Your task to perform on an android device: Add usb-c to usb-b to the cart on target.com Image 0: 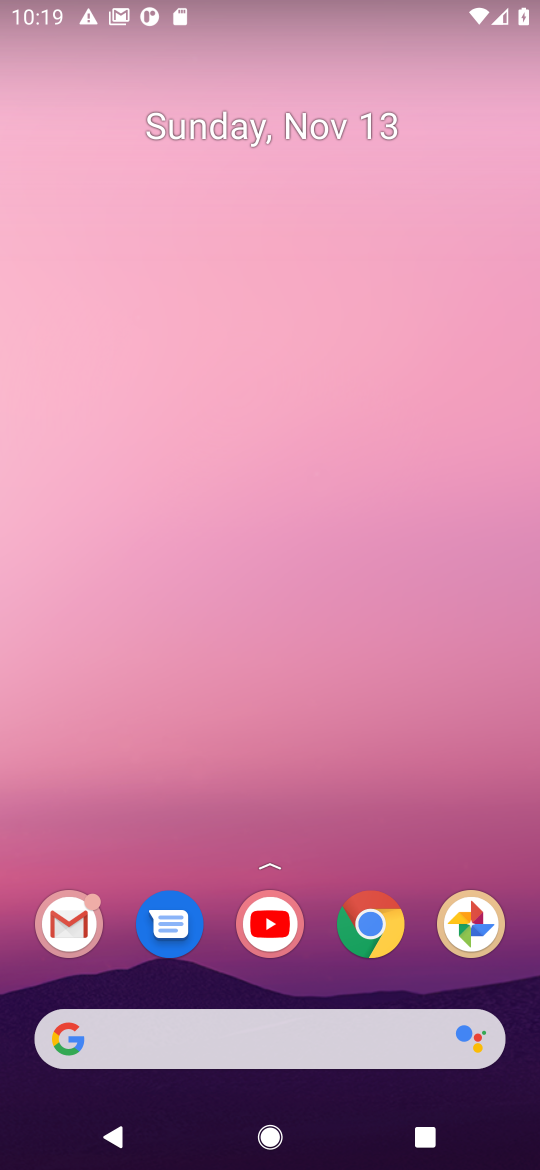
Step 0: click (369, 927)
Your task to perform on an android device: Add usb-c to usb-b to the cart on target.com Image 1: 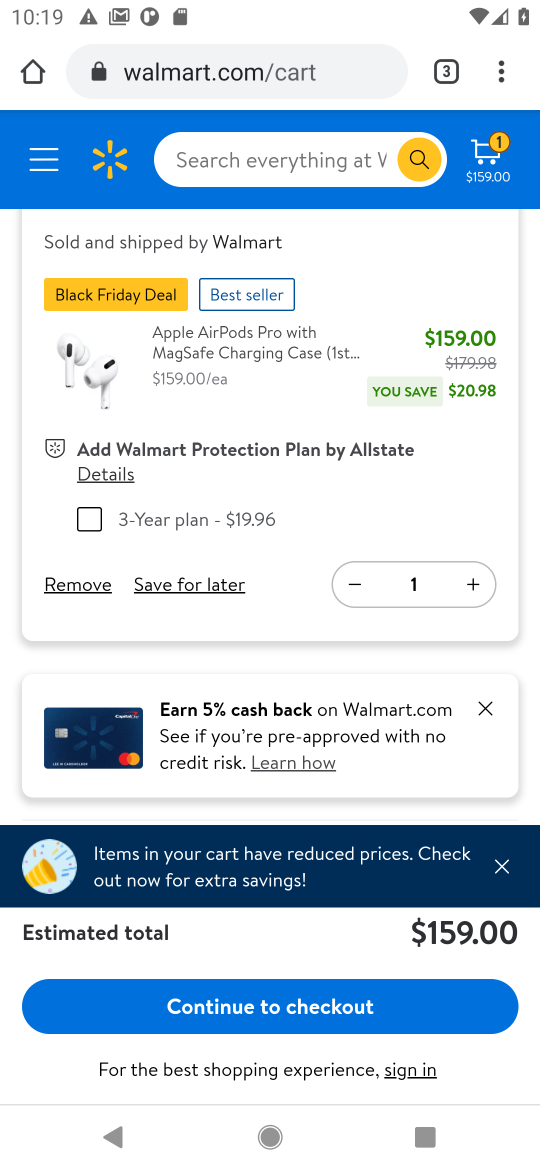
Step 1: click (209, 63)
Your task to perform on an android device: Add usb-c to usb-b to the cart on target.com Image 2: 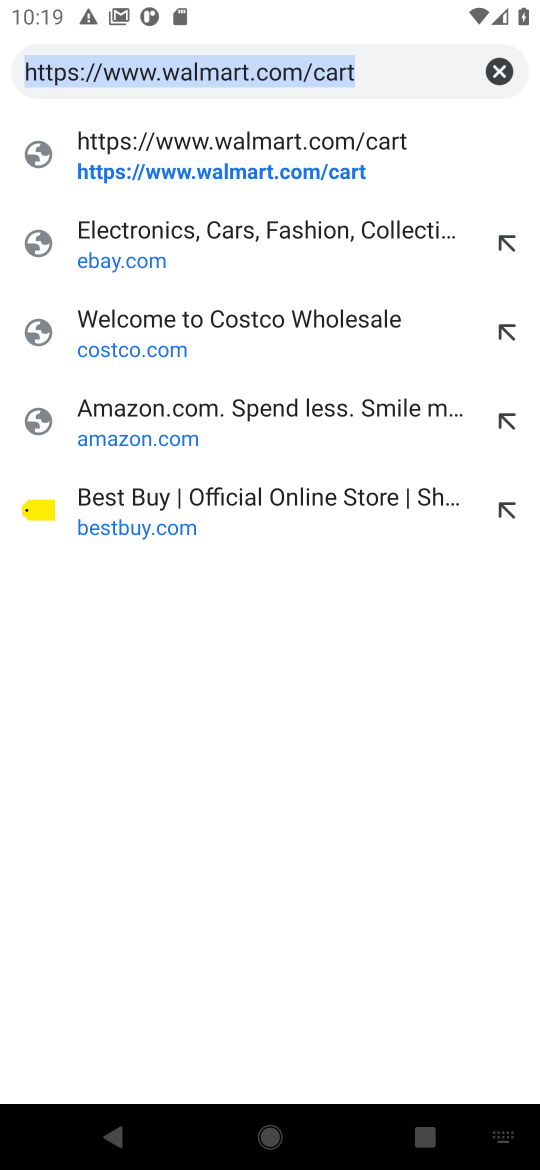
Step 2: type "target.com"
Your task to perform on an android device: Add usb-c to usb-b to the cart on target.com Image 3: 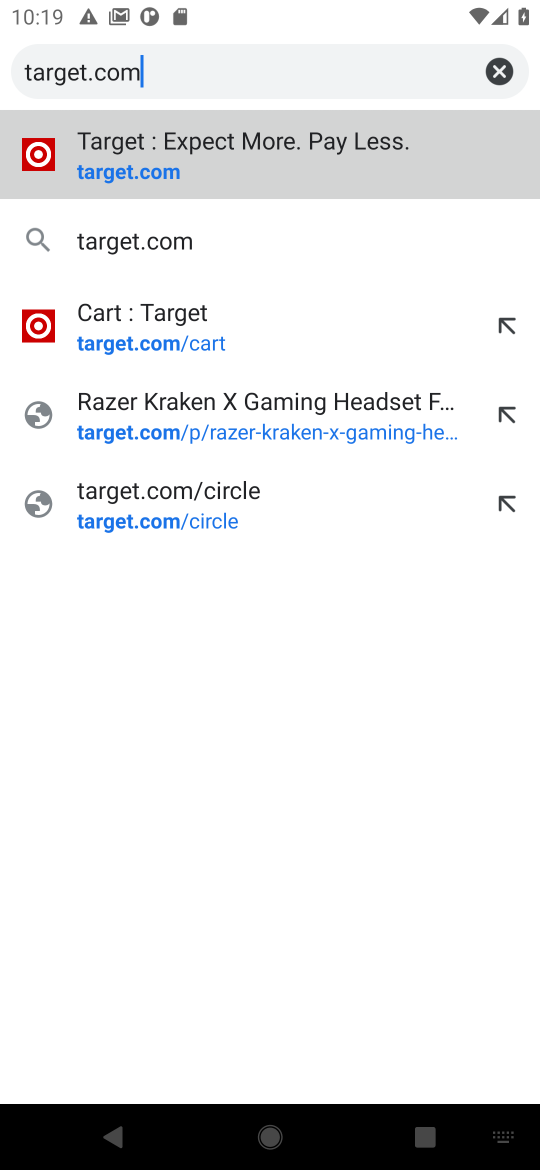
Step 3: click (117, 161)
Your task to perform on an android device: Add usb-c to usb-b to the cart on target.com Image 4: 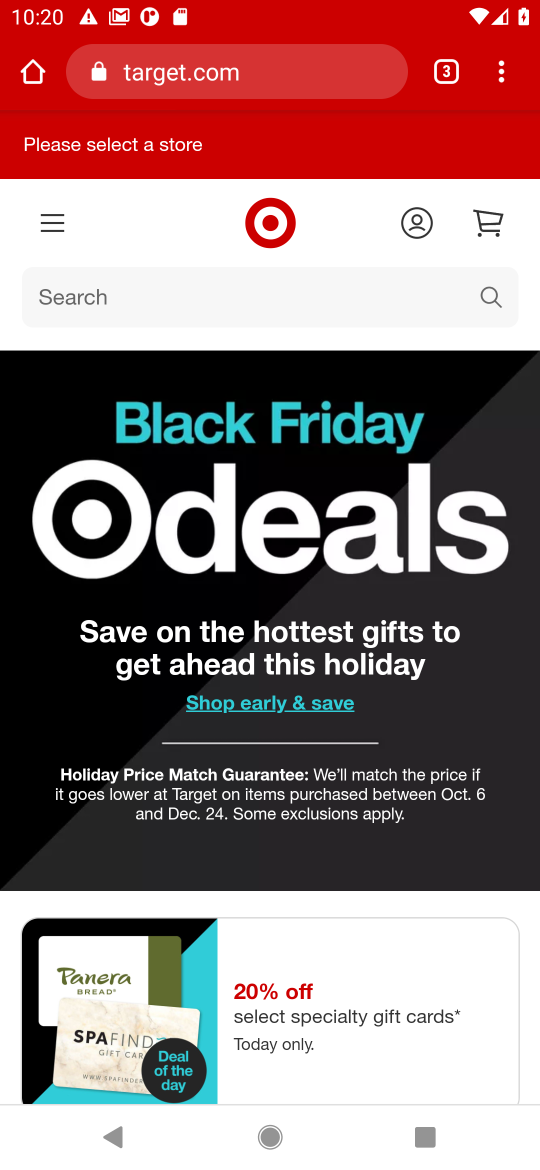
Step 4: click (485, 300)
Your task to perform on an android device: Add usb-c to usb-b to the cart on target.com Image 5: 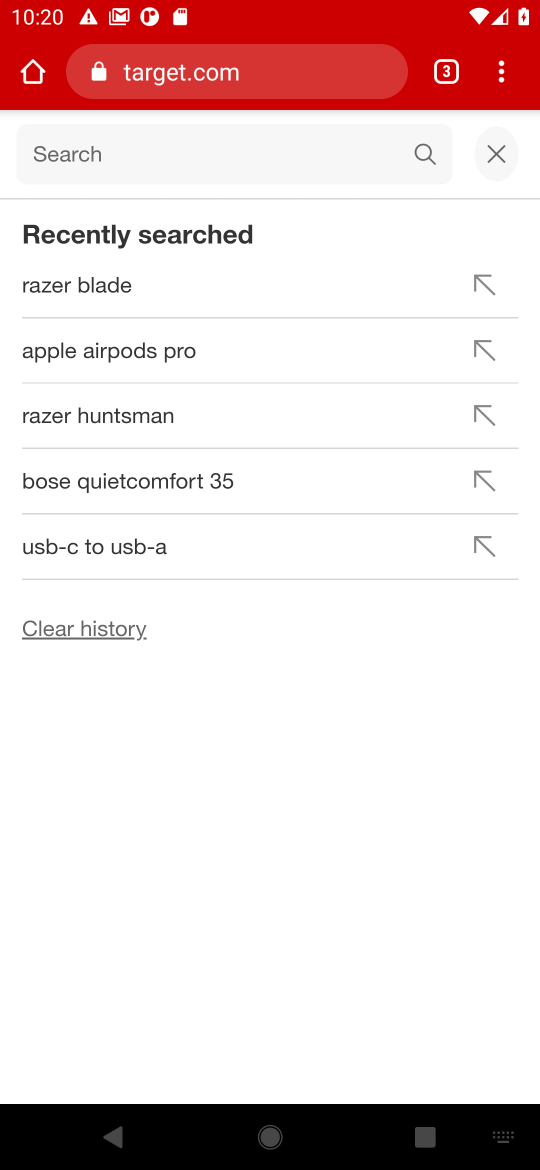
Step 5: type "usb-c to usb-b"
Your task to perform on an android device: Add usb-c to usb-b to the cart on target.com Image 6: 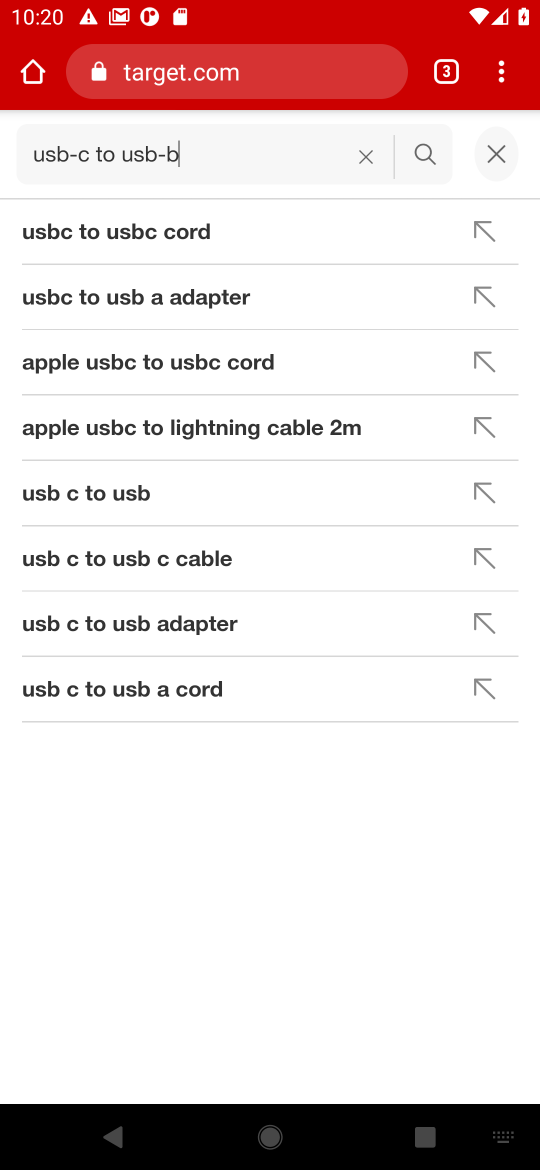
Step 6: click (423, 153)
Your task to perform on an android device: Add usb-c to usb-b to the cart on target.com Image 7: 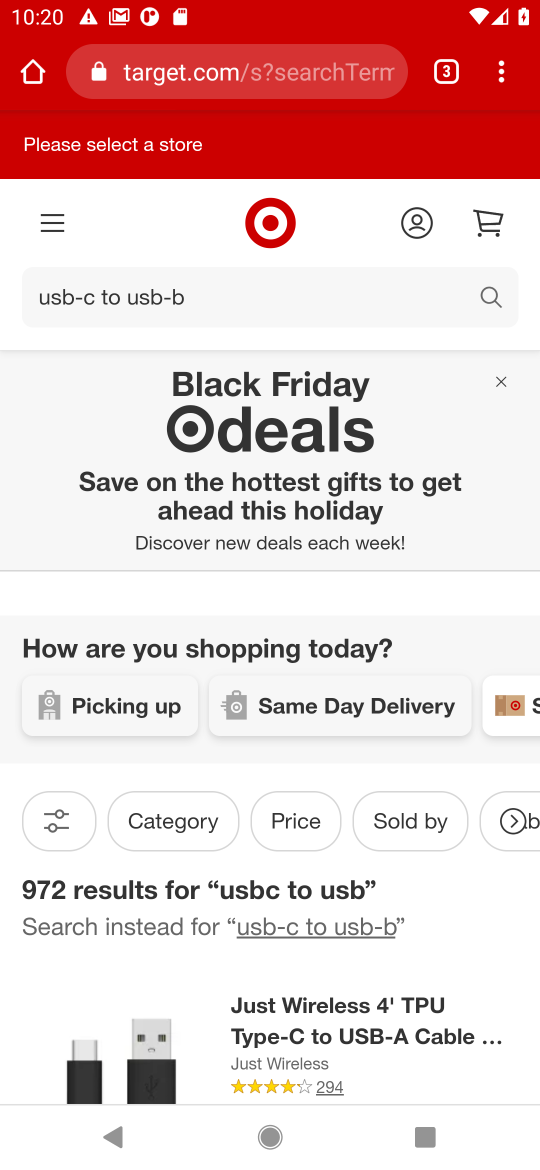
Step 7: drag from (185, 792) to (179, 345)
Your task to perform on an android device: Add usb-c to usb-b to the cart on target.com Image 8: 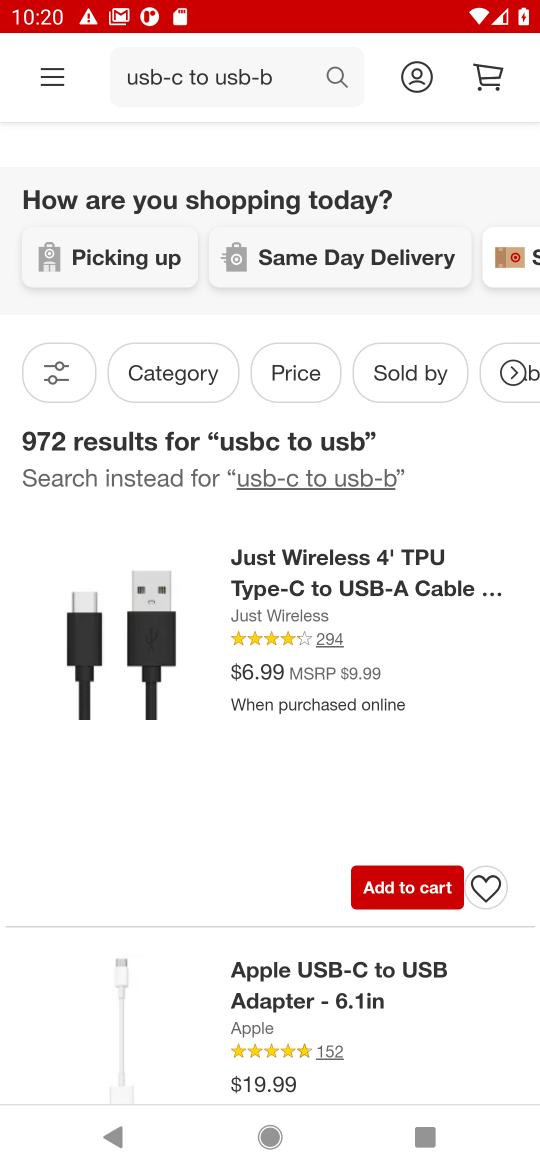
Step 8: drag from (295, 703) to (281, 343)
Your task to perform on an android device: Add usb-c to usb-b to the cart on target.com Image 9: 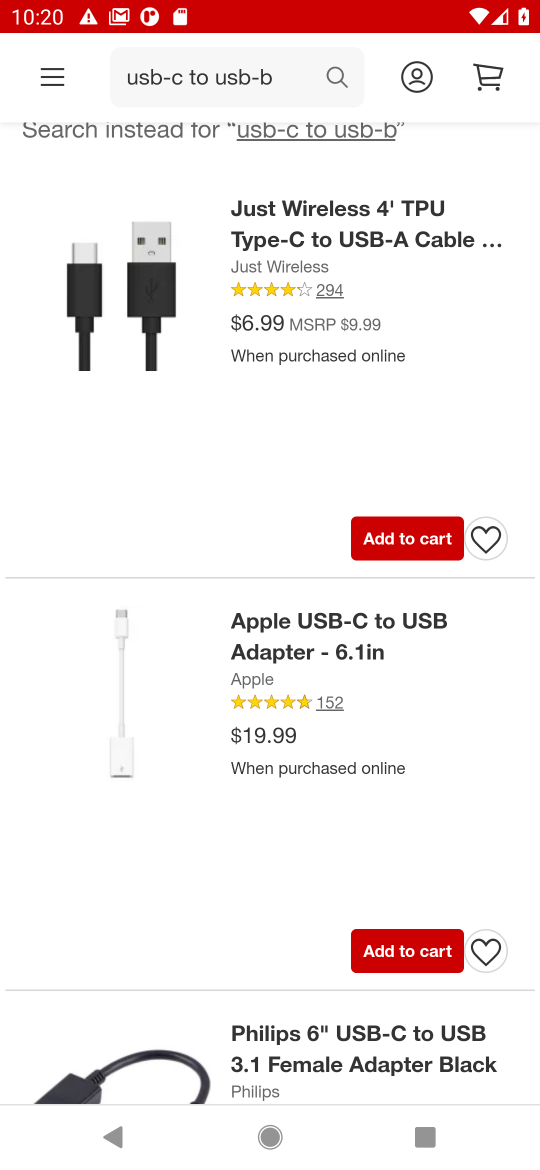
Step 9: drag from (186, 789) to (225, 412)
Your task to perform on an android device: Add usb-c to usb-b to the cart on target.com Image 10: 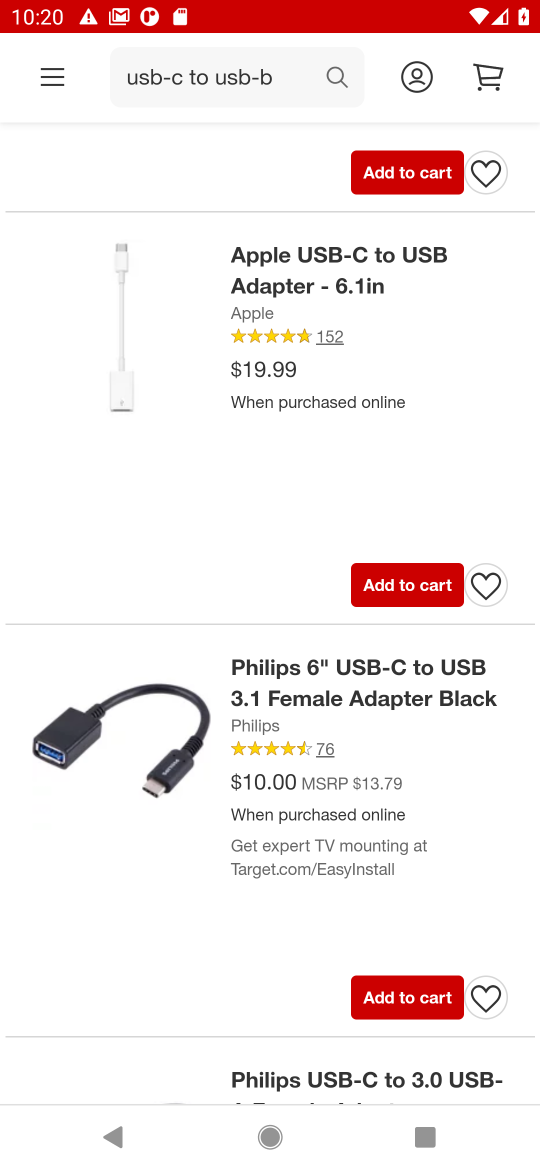
Step 10: drag from (223, 892) to (247, 469)
Your task to perform on an android device: Add usb-c to usb-b to the cart on target.com Image 11: 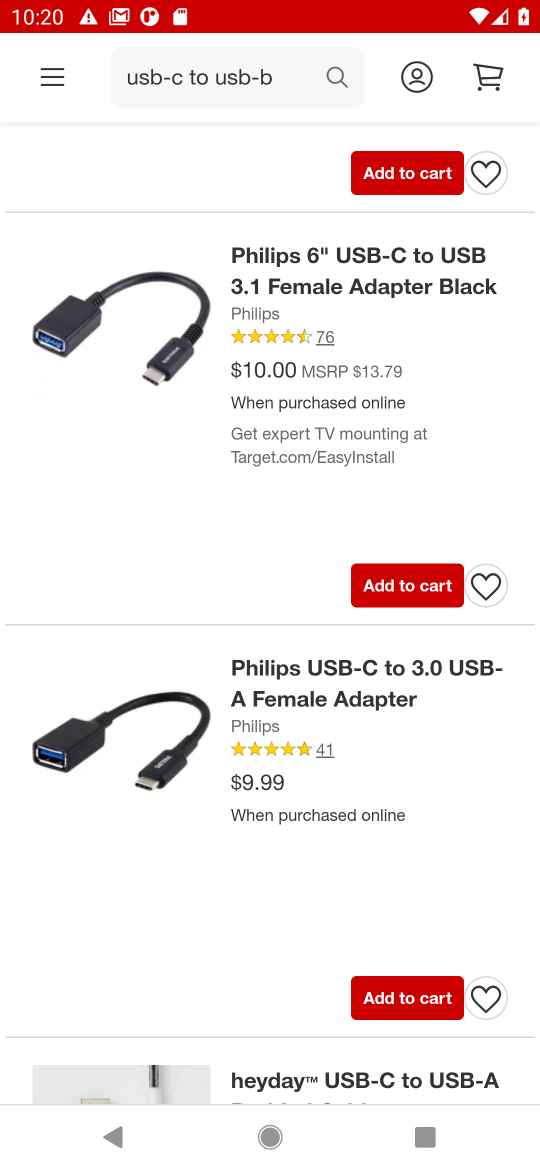
Step 11: drag from (205, 869) to (204, 431)
Your task to perform on an android device: Add usb-c to usb-b to the cart on target.com Image 12: 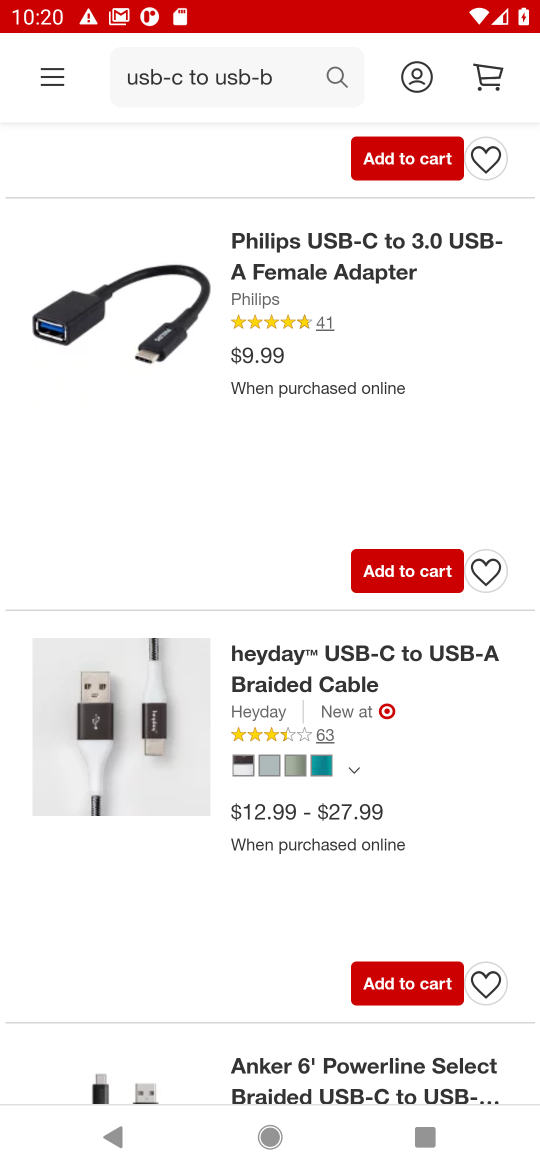
Step 12: drag from (208, 700) to (208, 421)
Your task to perform on an android device: Add usb-c to usb-b to the cart on target.com Image 13: 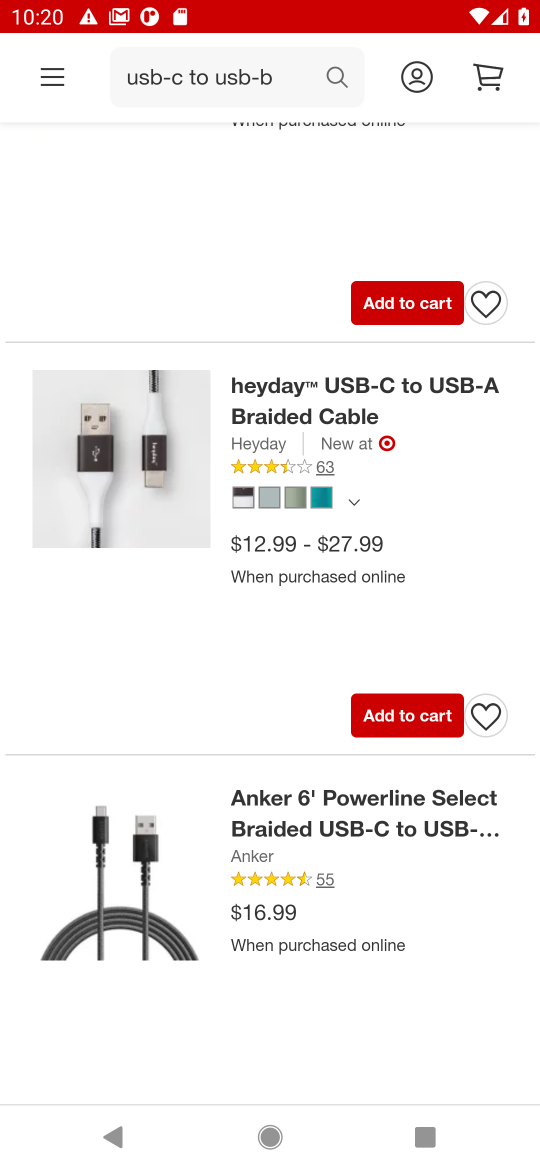
Step 13: click (191, 916)
Your task to perform on an android device: Add usb-c to usb-b to the cart on target.com Image 14: 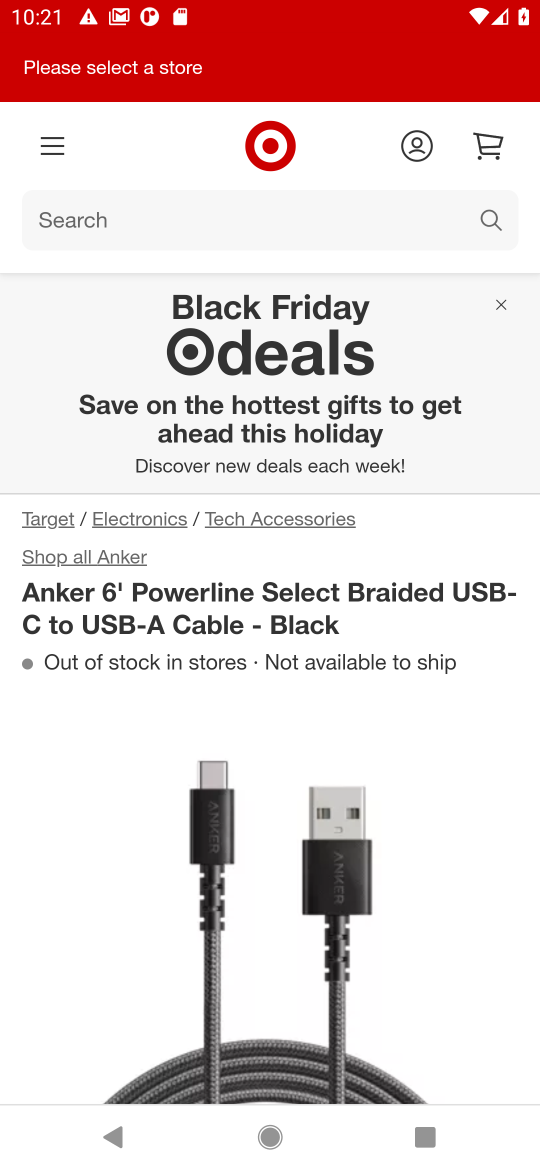
Step 14: task complete